Your task to perform on an android device: turn off priority inbox in the gmail app Image 0: 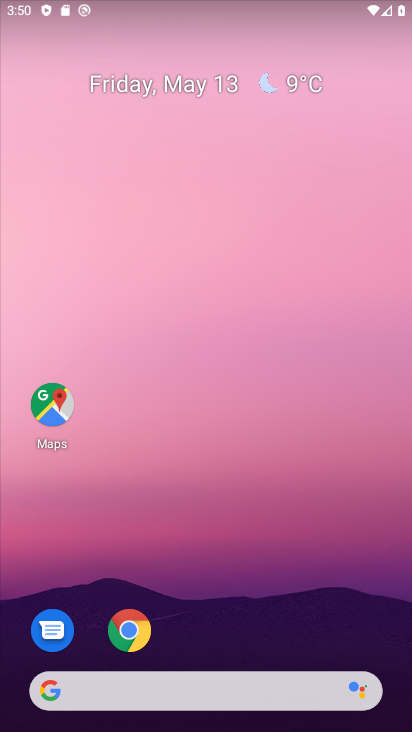
Step 0: drag from (258, 551) to (223, 83)
Your task to perform on an android device: turn off priority inbox in the gmail app Image 1: 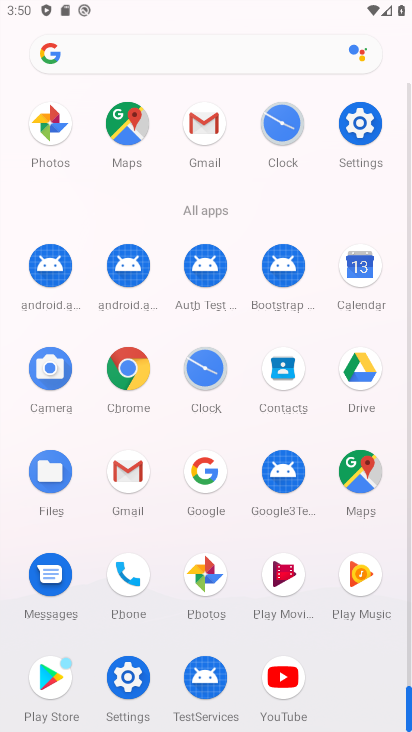
Step 1: drag from (5, 565) to (4, 221)
Your task to perform on an android device: turn off priority inbox in the gmail app Image 2: 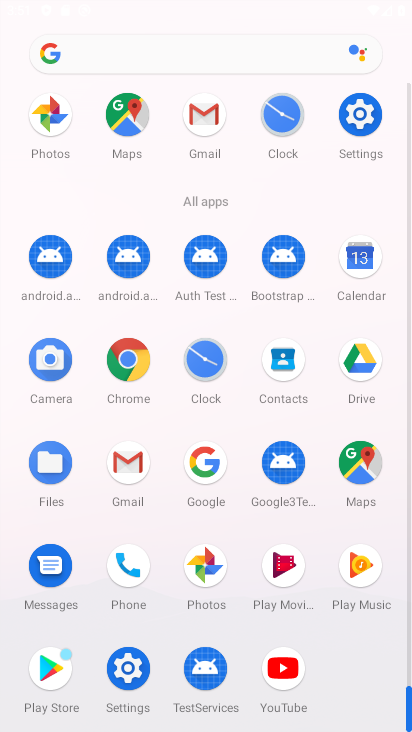
Step 2: click (125, 463)
Your task to perform on an android device: turn off priority inbox in the gmail app Image 3: 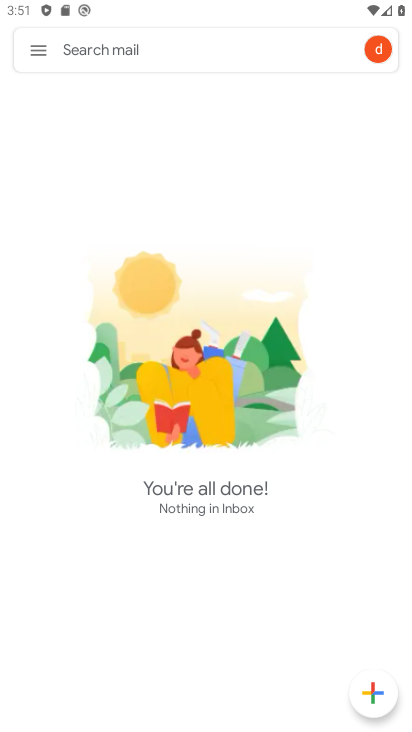
Step 3: click (42, 46)
Your task to perform on an android device: turn off priority inbox in the gmail app Image 4: 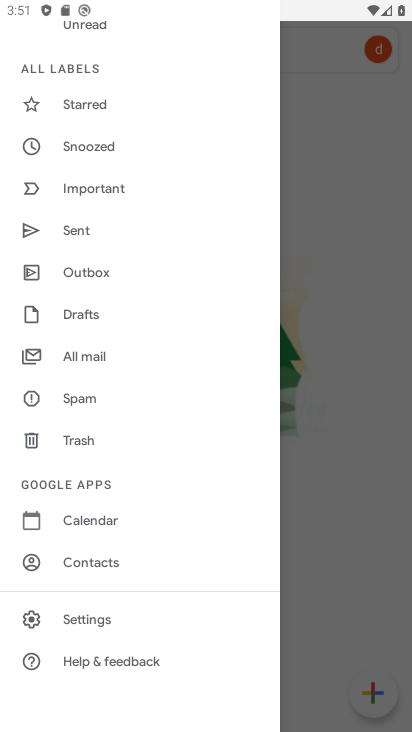
Step 4: click (92, 614)
Your task to perform on an android device: turn off priority inbox in the gmail app Image 5: 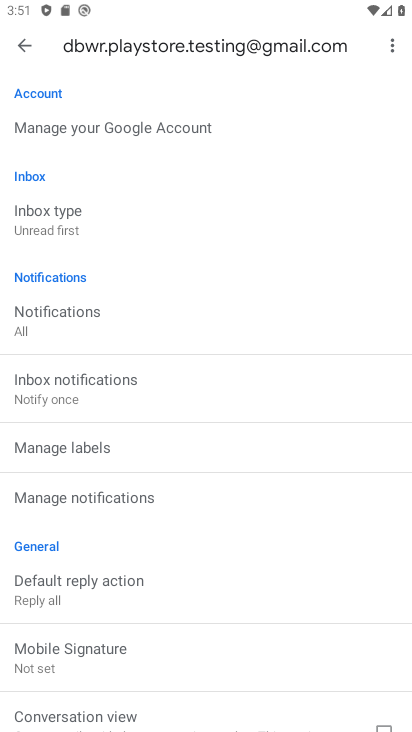
Step 5: click (86, 220)
Your task to perform on an android device: turn off priority inbox in the gmail app Image 6: 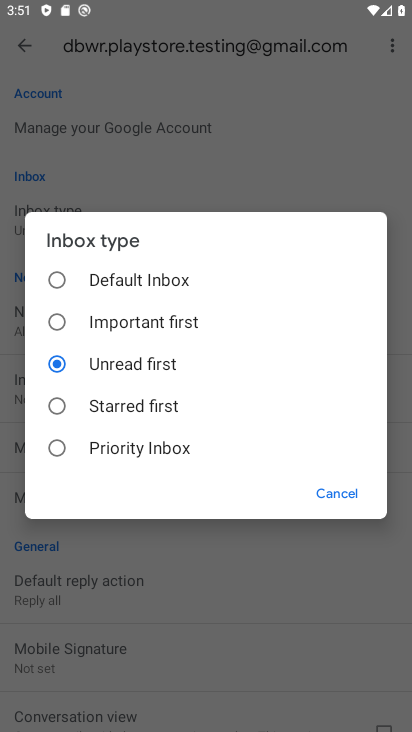
Step 6: click (102, 285)
Your task to perform on an android device: turn off priority inbox in the gmail app Image 7: 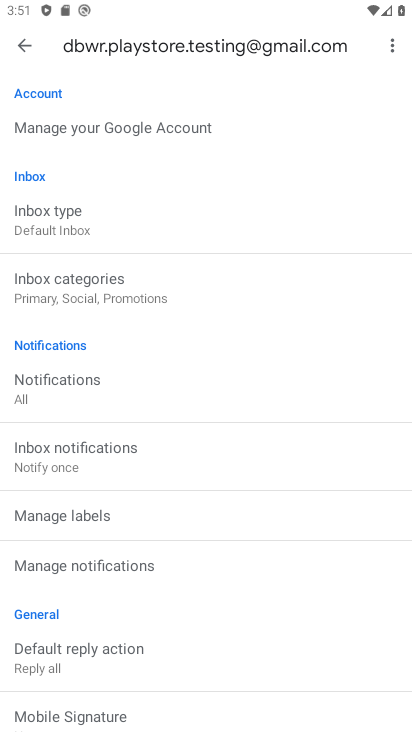
Step 7: task complete